Your task to perform on an android device: turn off picture-in-picture Image 0: 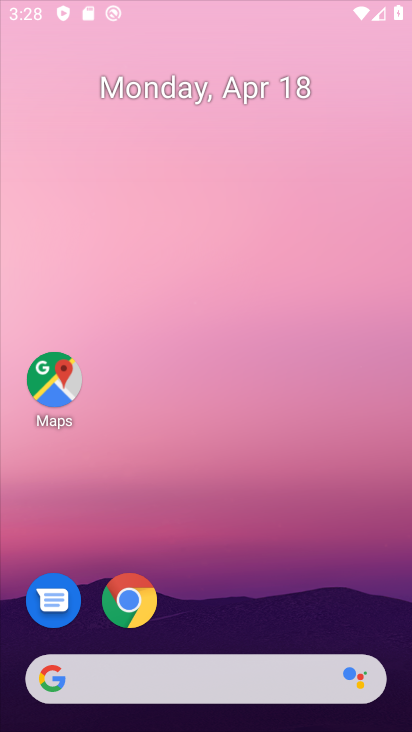
Step 0: click (163, 532)
Your task to perform on an android device: turn off picture-in-picture Image 1: 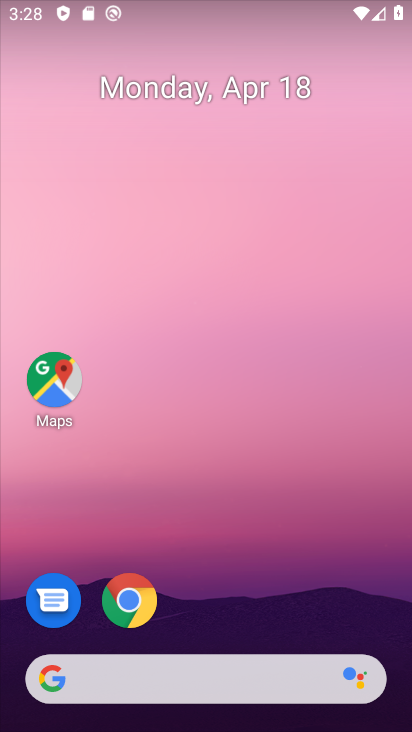
Step 1: drag from (293, 705) to (231, 418)
Your task to perform on an android device: turn off picture-in-picture Image 2: 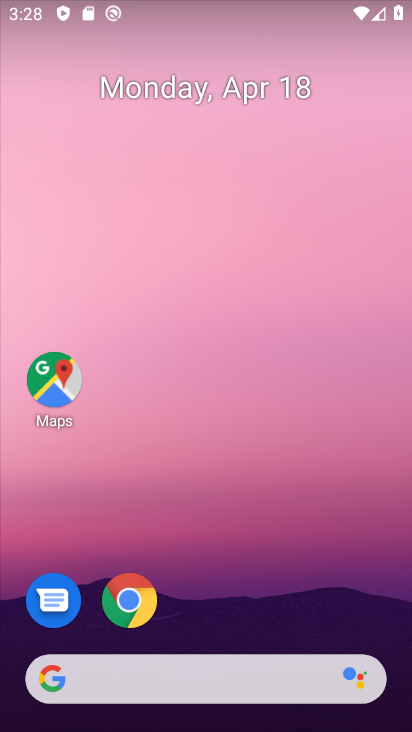
Step 2: drag from (250, 679) to (196, 162)
Your task to perform on an android device: turn off picture-in-picture Image 3: 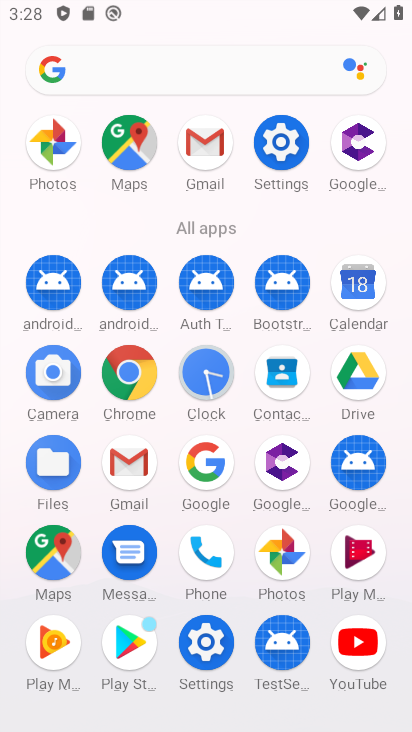
Step 3: click (285, 158)
Your task to perform on an android device: turn off picture-in-picture Image 4: 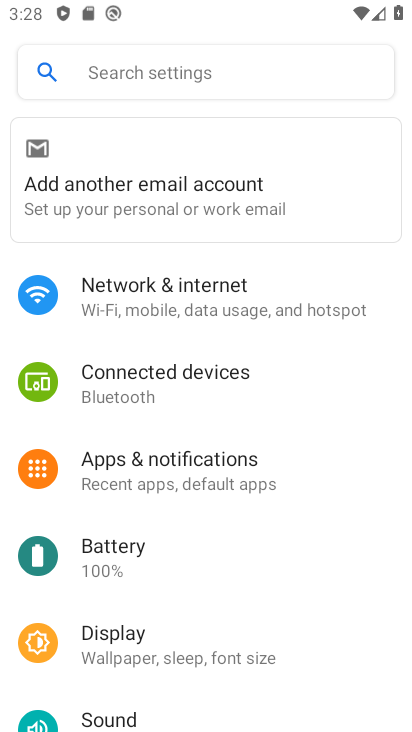
Step 4: click (215, 78)
Your task to perform on an android device: turn off picture-in-picture Image 5: 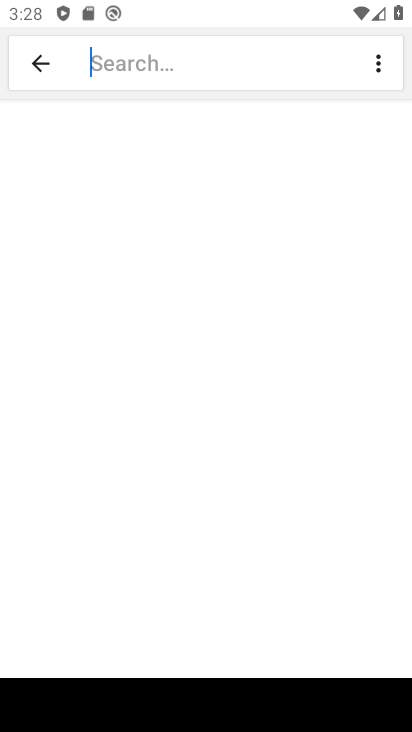
Step 5: click (168, 65)
Your task to perform on an android device: turn off picture-in-picture Image 6: 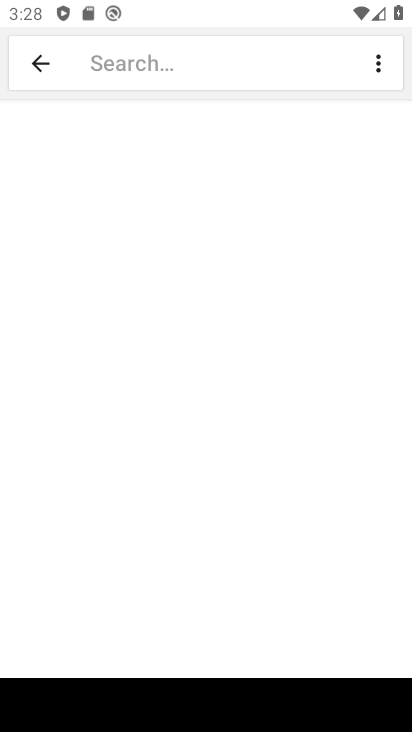
Step 6: click (169, 59)
Your task to perform on an android device: turn off picture-in-picture Image 7: 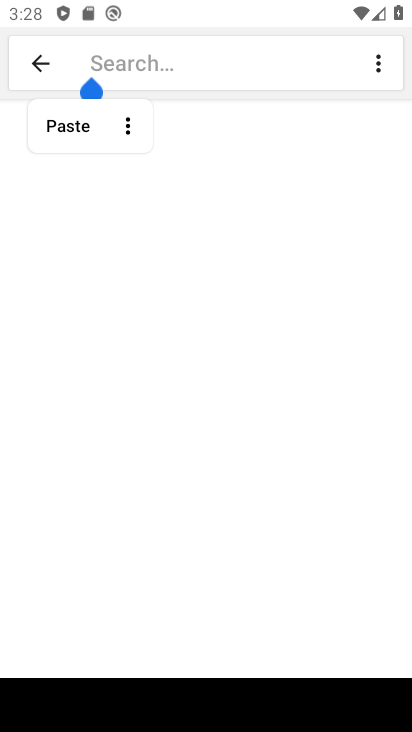
Step 7: drag from (392, 698) to (362, 638)
Your task to perform on an android device: turn off picture-in-picture Image 8: 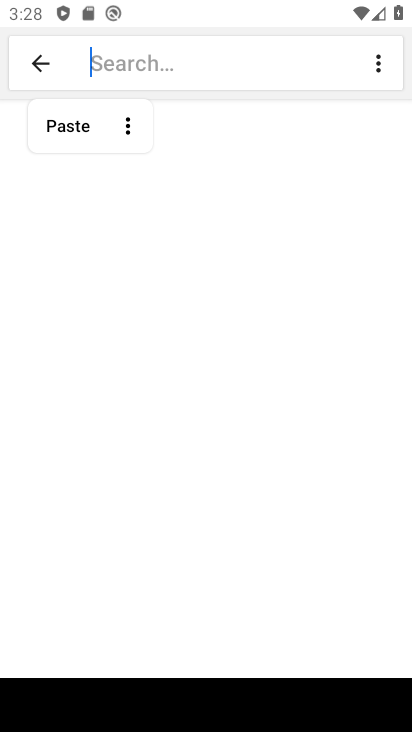
Step 8: click (377, 708)
Your task to perform on an android device: turn off picture-in-picture Image 9: 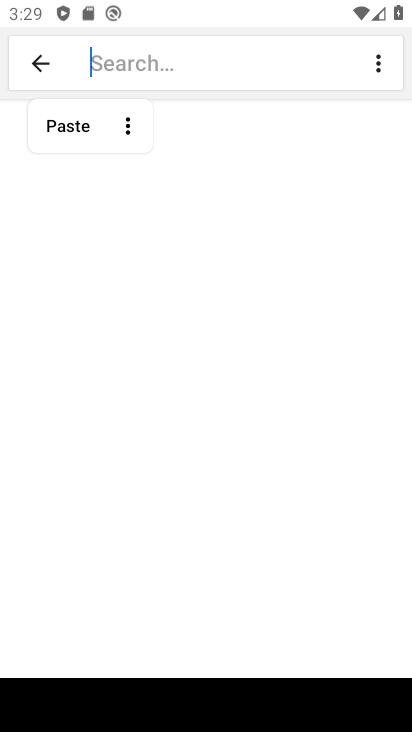
Step 9: drag from (382, 711) to (322, 433)
Your task to perform on an android device: turn off picture-in-picture Image 10: 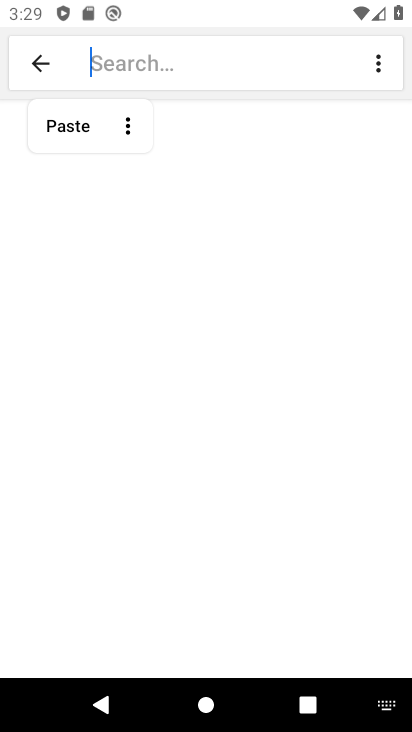
Step 10: click (199, 59)
Your task to perform on an android device: turn off picture-in-picture Image 11: 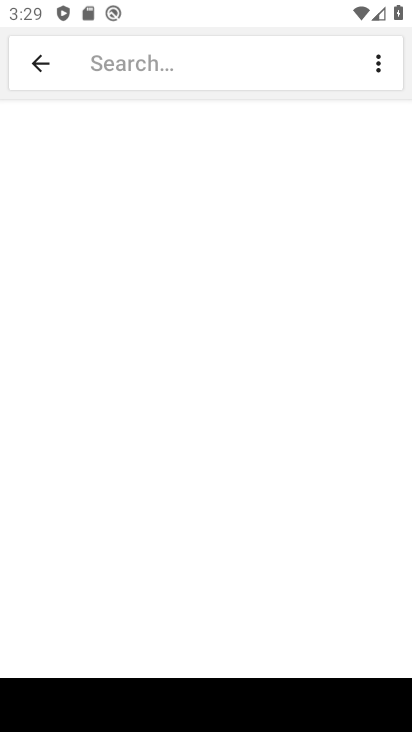
Step 11: click (142, 65)
Your task to perform on an android device: turn off picture-in-picture Image 12: 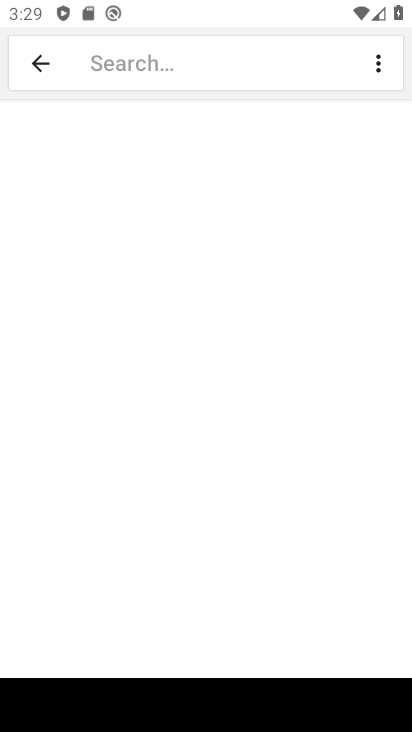
Step 12: click (166, 53)
Your task to perform on an android device: turn off picture-in-picture Image 13: 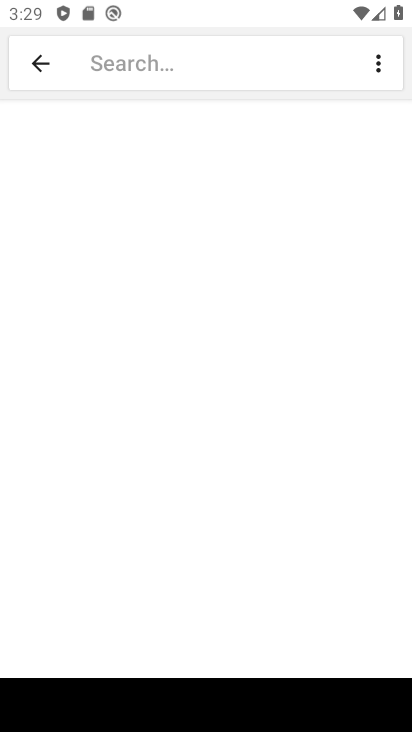
Step 13: click (166, 55)
Your task to perform on an android device: turn off picture-in-picture Image 14: 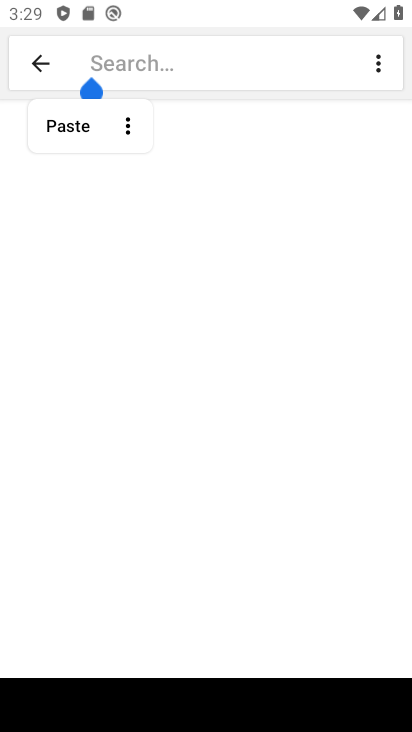
Step 14: click (127, 58)
Your task to perform on an android device: turn off picture-in-picture Image 15: 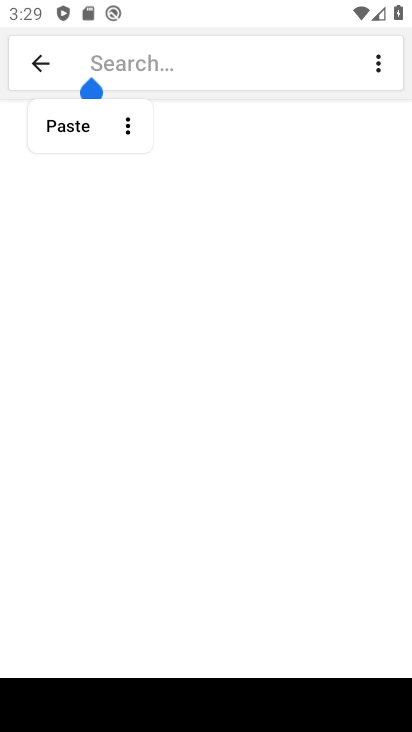
Step 15: click (160, 63)
Your task to perform on an android device: turn off picture-in-picture Image 16: 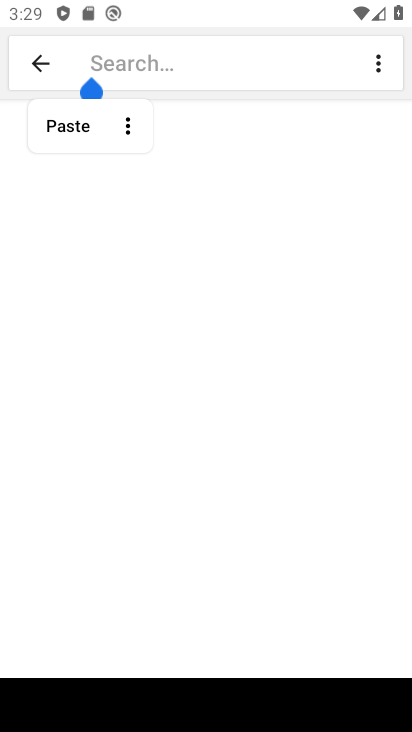
Step 16: click (395, 704)
Your task to perform on an android device: turn off picture-in-picture Image 17: 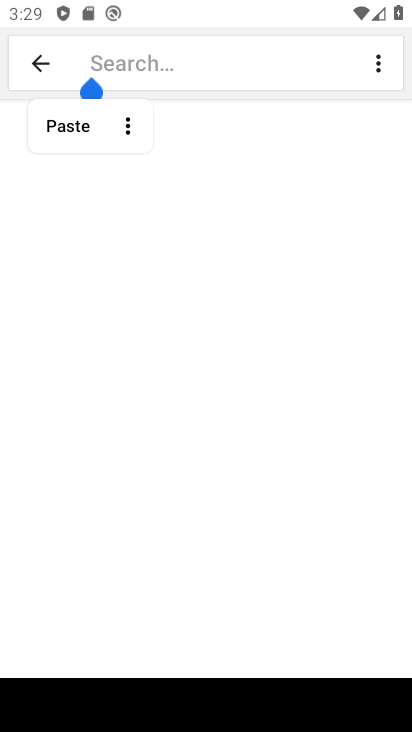
Step 17: click (35, 62)
Your task to perform on an android device: turn off picture-in-picture Image 18: 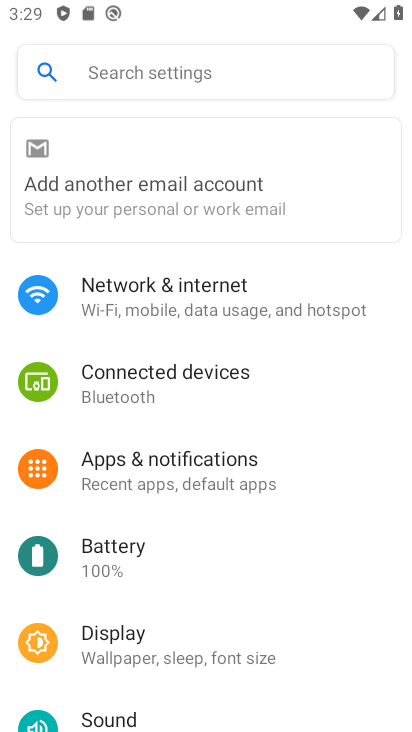
Step 18: click (146, 70)
Your task to perform on an android device: turn off picture-in-picture Image 19: 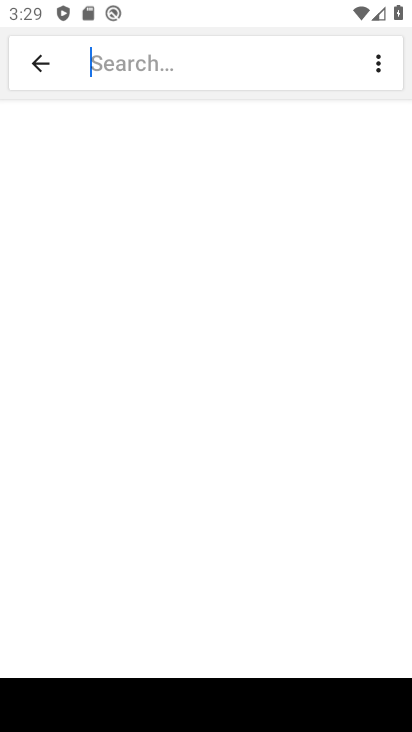
Step 19: click (153, 72)
Your task to perform on an android device: turn off picture-in-picture Image 20: 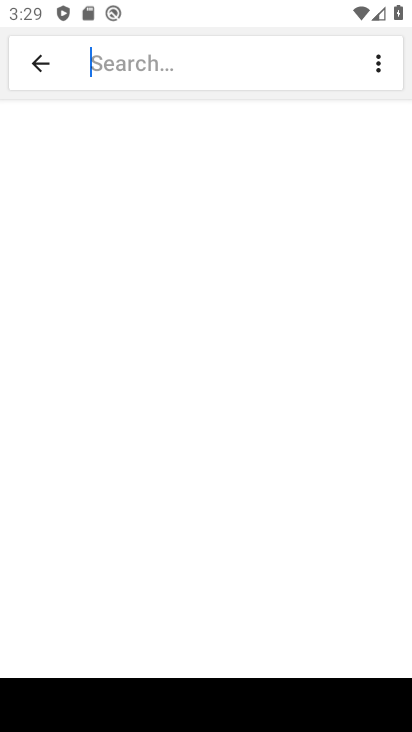
Step 20: click (400, 704)
Your task to perform on an android device: turn off picture-in-picture Image 21: 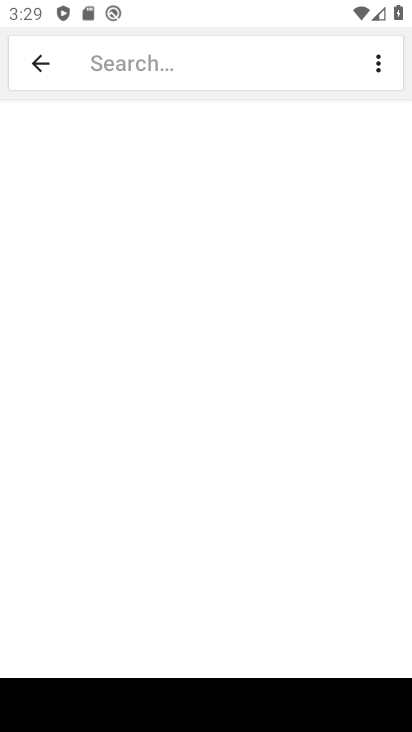
Step 21: click (139, 74)
Your task to perform on an android device: turn off picture-in-picture Image 22: 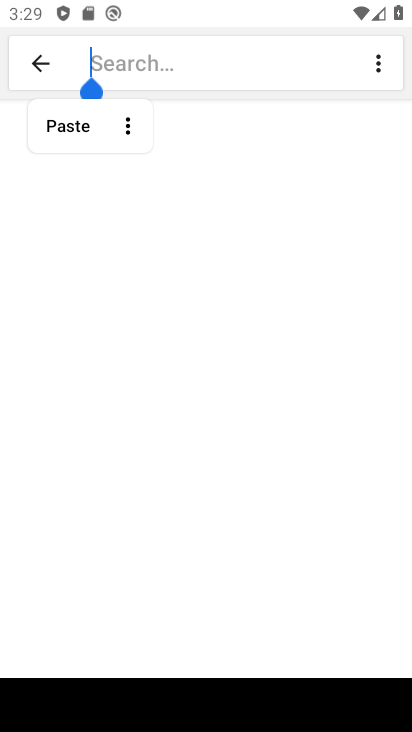
Step 22: click (390, 721)
Your task to perform on an android device: turn off picture-in-picture Image 23: 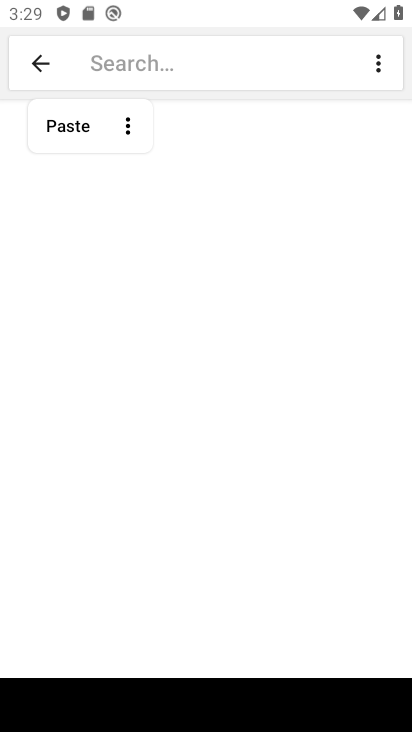
Step 23: click (201, 58)
Your task to perform on an android device: turn off picture-in-picture Image 24: 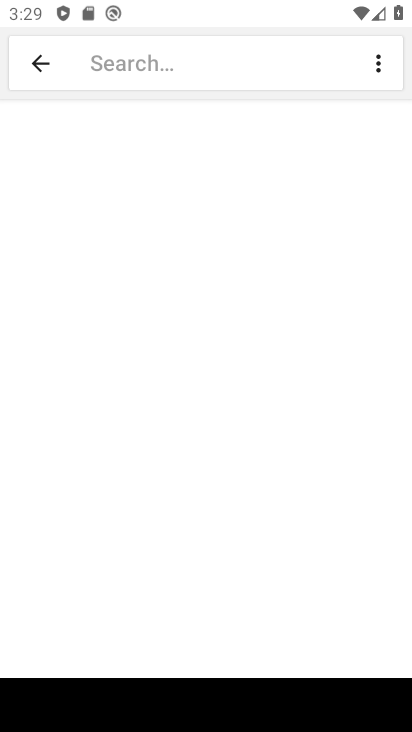
Step 24: drag from (400, 705) to (292, 336)
Your task to perform on an android device: turn off picture-in-picture Image 25: 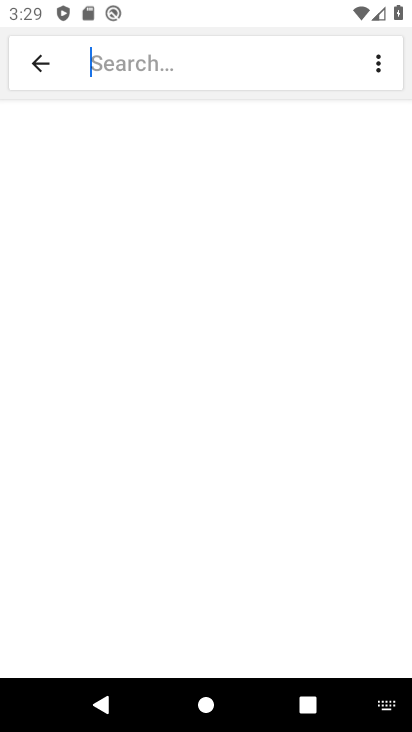
Step 25: click (384, 716)
Your task to perform on an android device: turn off picture-in-picture Image 26: 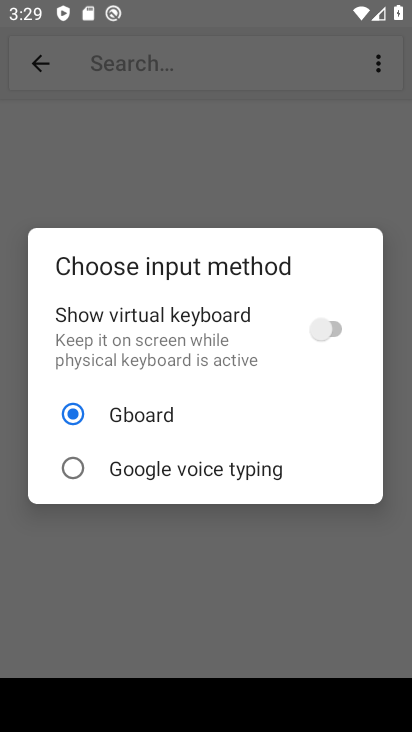
Step 26: click (340, 304)
Your task to perform on an android device: turn off picture-in-picture Image 27: 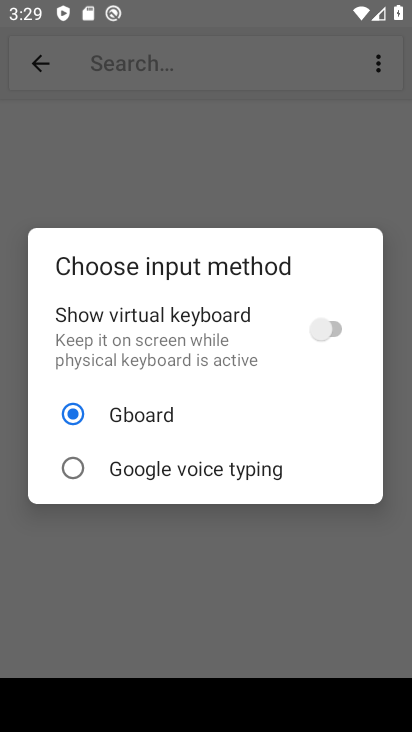
Step 27: click (332, 325)
Your task to perform on an android device: turn off picture-in-picture Image 28: 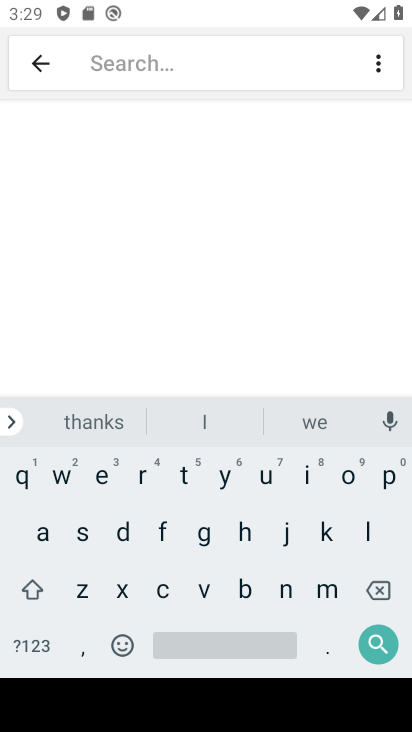
Step 28: click (381, 477)
Your task to perform on an android device: turn off picture-in-picture Image 29: 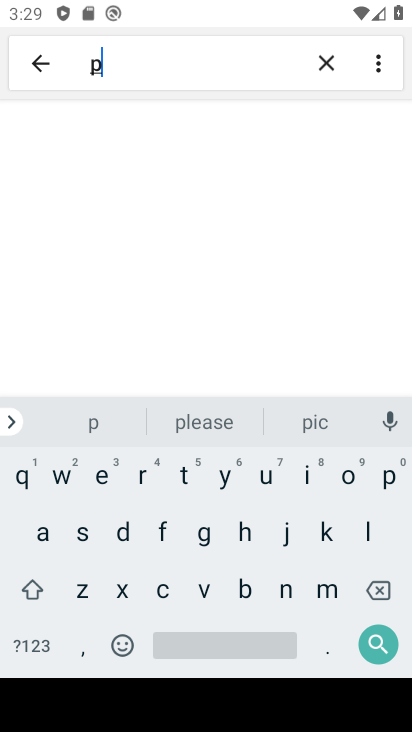
Step 29: click (308, 474)
Your task to perform on an android device: turn off picture-in-picture Image 30: 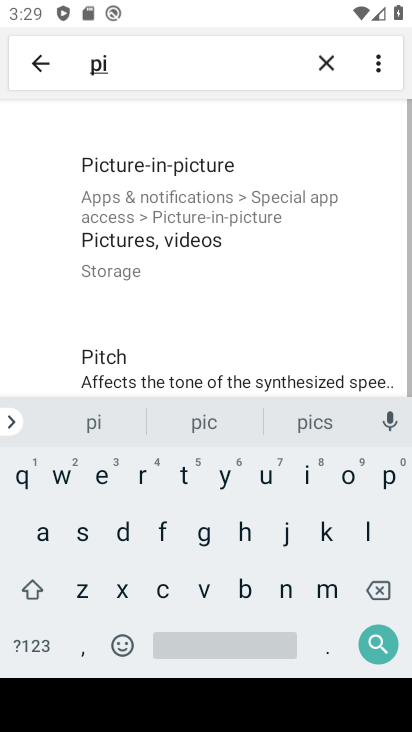
Step 30: click (161, 593)
Your task to perform on an android device: turn off picture-in-picture Image 31: 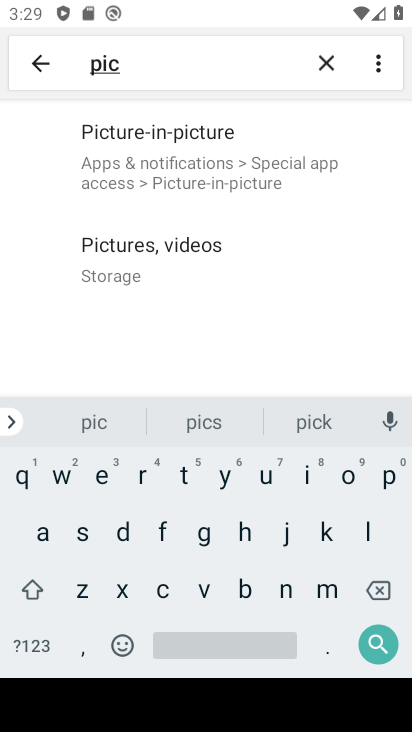
Step 31: click (206, 164)
Your task to perform on an android device: turn off picture-in-picture Image 32: 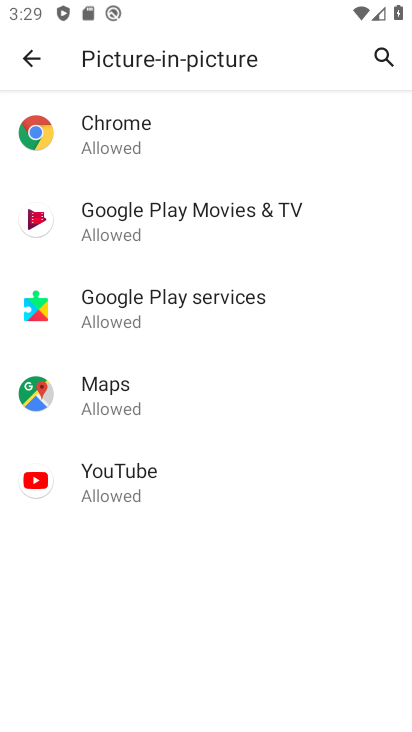
Step 32: task complete